Your task to perform on an android device: What's the weather today? Image 0: 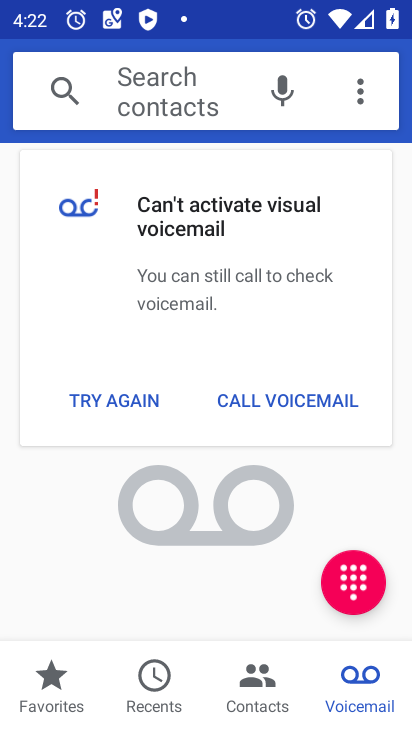
Step 0: press home button
Your task to perform on an android device: What's the weather today? Image 1: 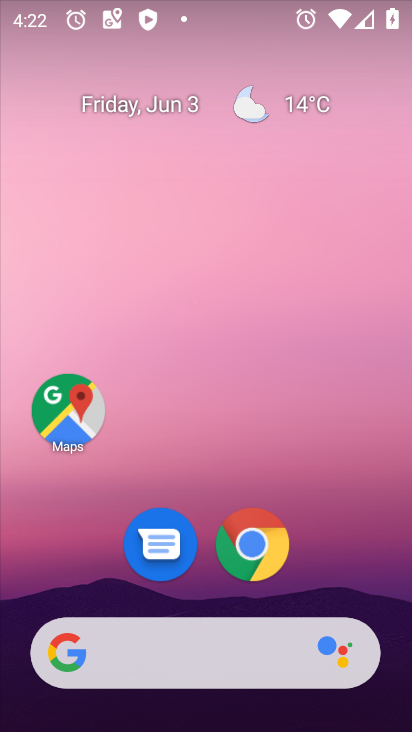
Step 1: click (291, 100)
Your task to perform on an android device: What's the weather today? Image 2: 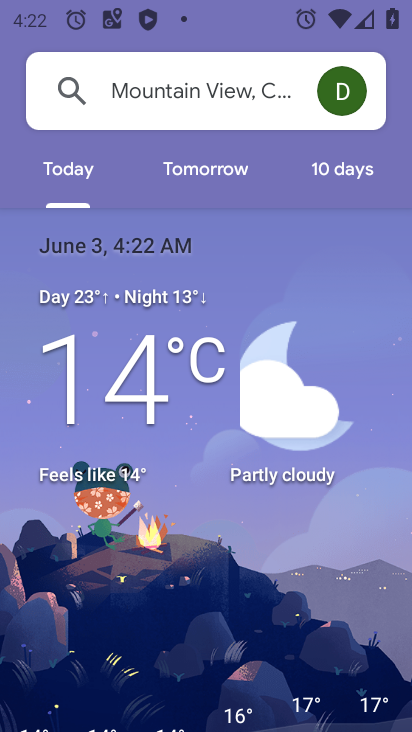
Step 2: task complete